Your task to perform on an android device: Open Youtube and go to "Your channel" Image 0: 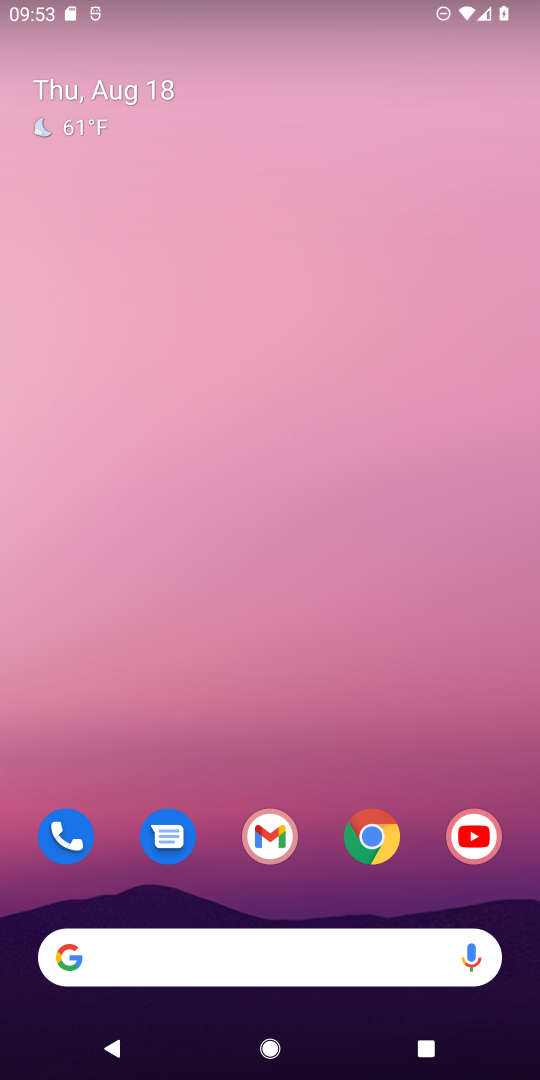
Step 0: drag from (298, 734) to (310, 204)
Your task to perform on an android device: Open Youtube and go to "Your channel" Image 1: 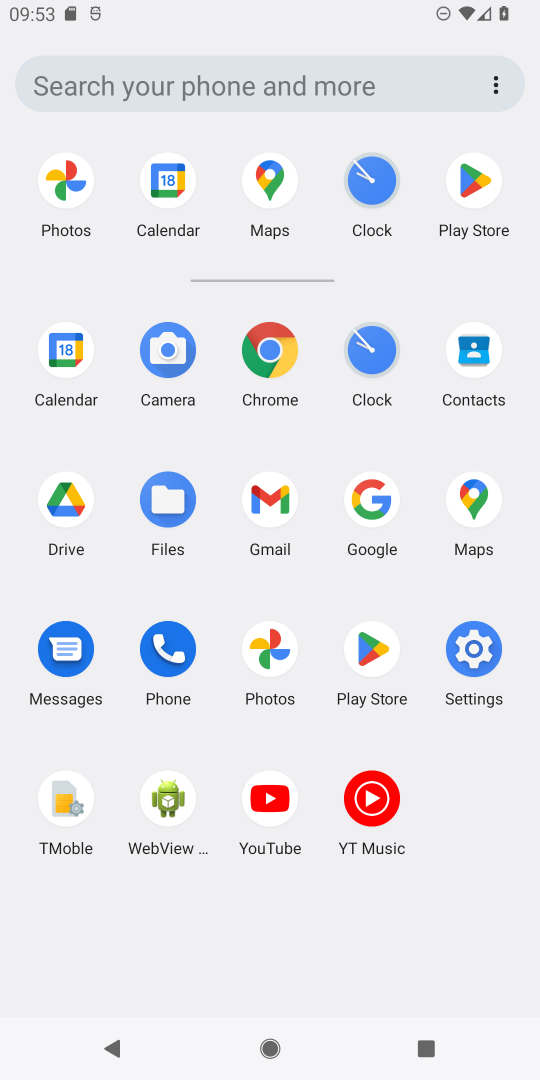
Step 1: click (272, 791)
Your task to perform on an android device: Open Youtube and go to "Your channel" Image 2: 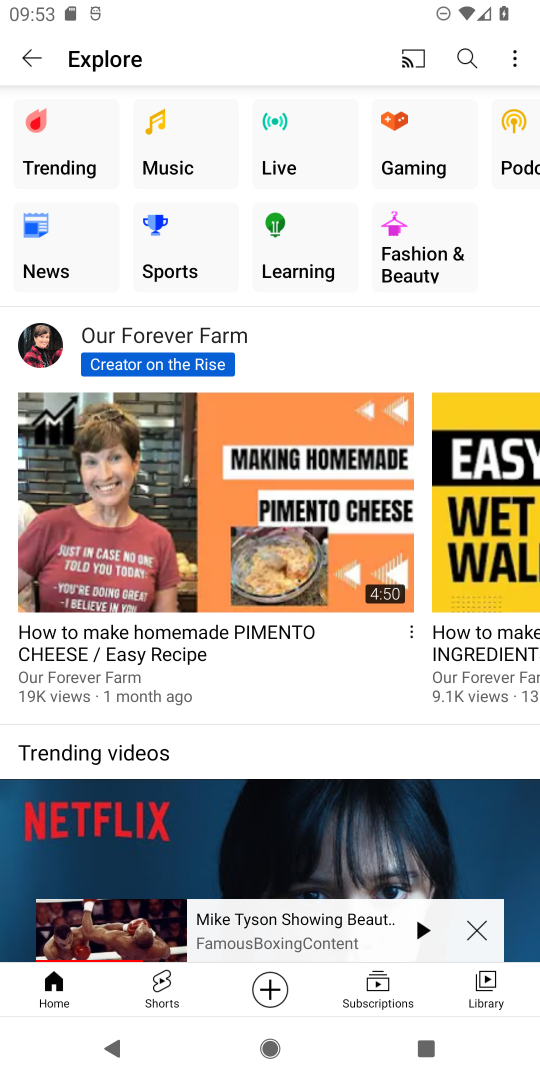
Step 2: press back button
Your task to perform on an android device: Open Youtube and go to "Your channel" Image 3: 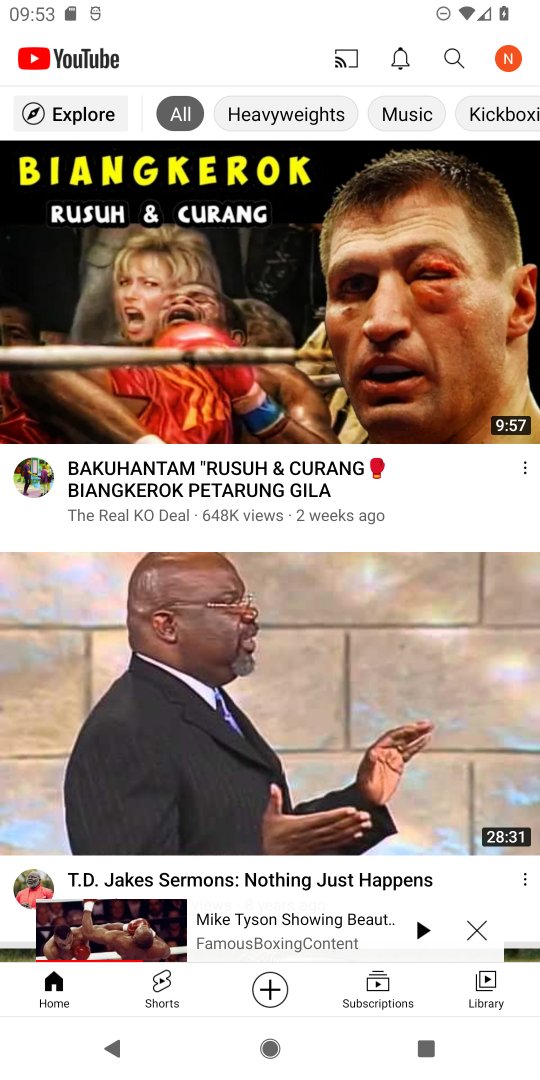
Step 3: click (514, 57)
Your task to perform on an android device: Open Youtube and go to "Your channel" Image 4: 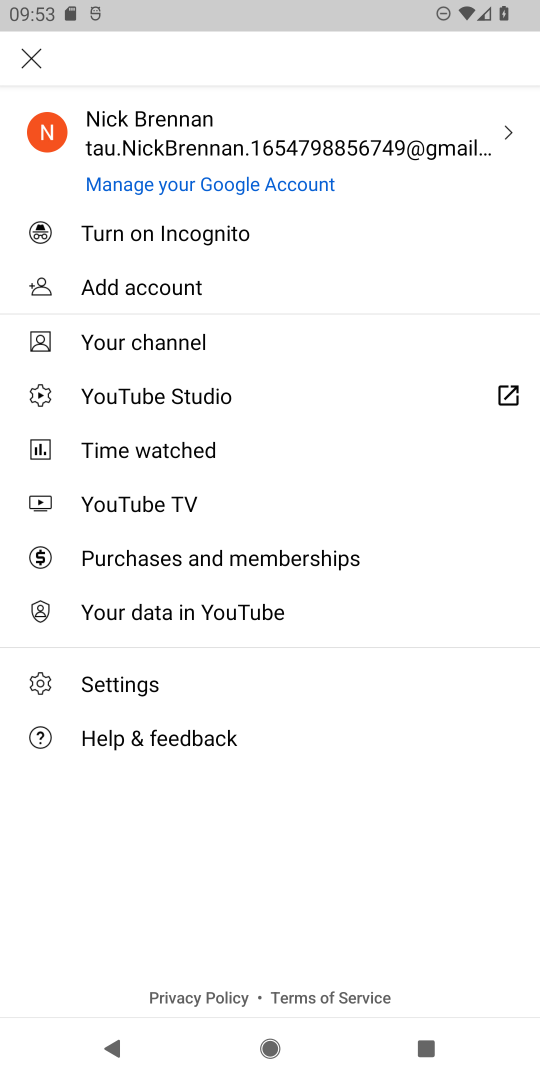
Step 4: click (196, 296)
Your task to perform on an android device: Open Youtube and go to "Your channel" Image 5: 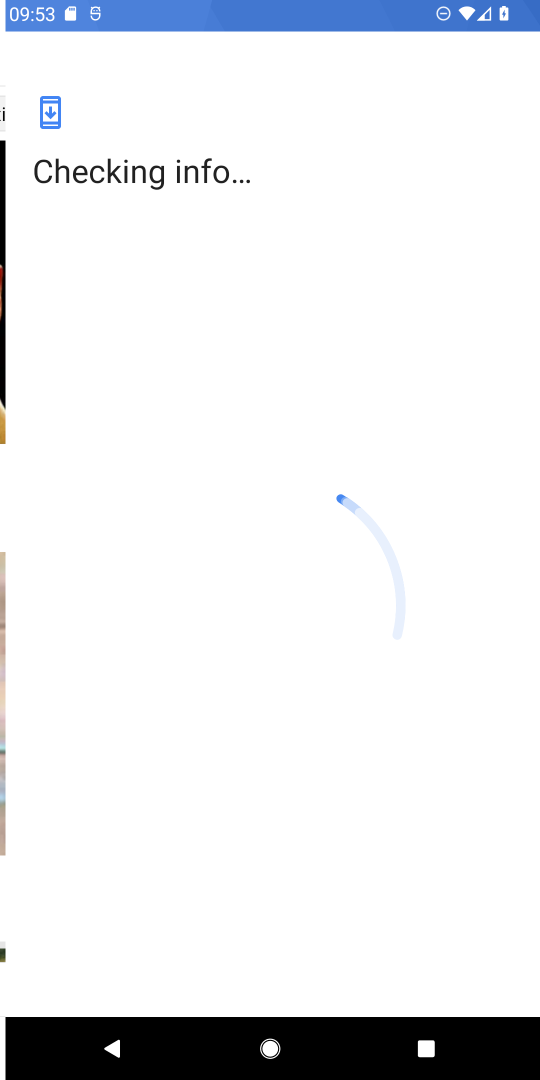
Step 5: press back button
Your task to perform on an android device: Open Youtube and go to "Your channel" Image 6: 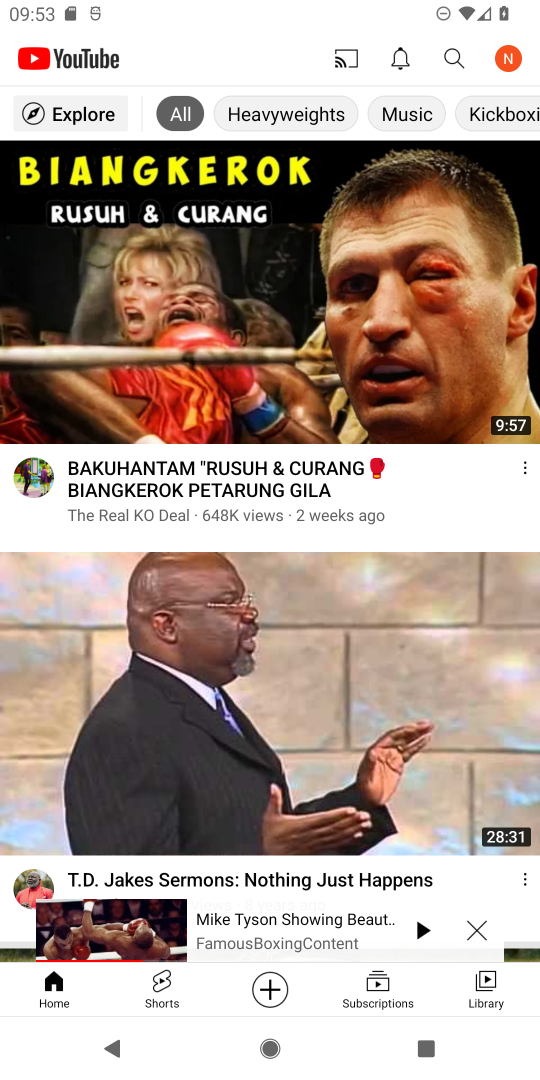
Step 6: click (512, 71)
Your task to perform on an android device: Open Youtube and go to "Your channel" Image 7: 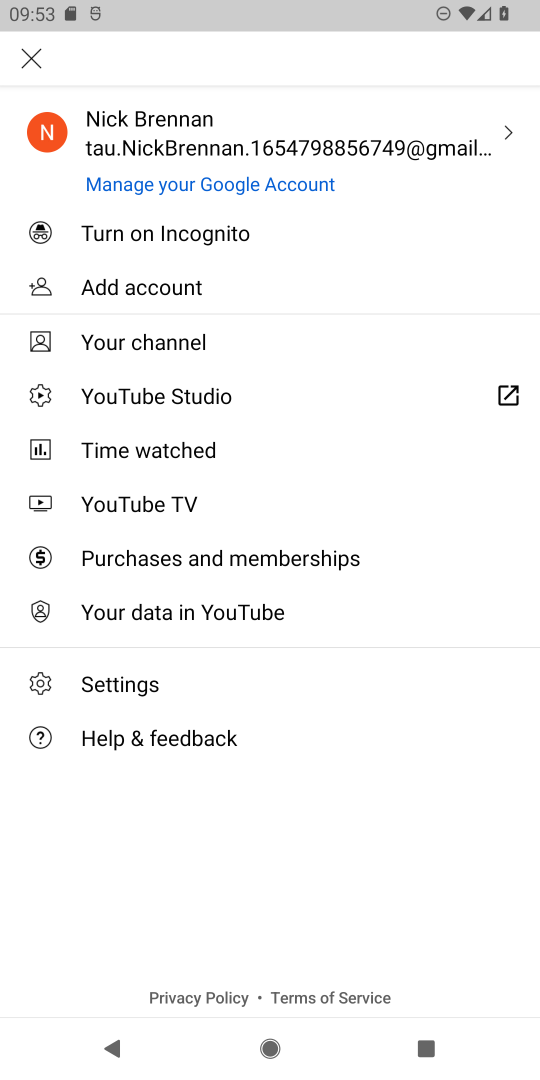
Step 7: click (169, 345)
Your task to perform on an android device: Open Youtube and go to "Your channel" Image 8: 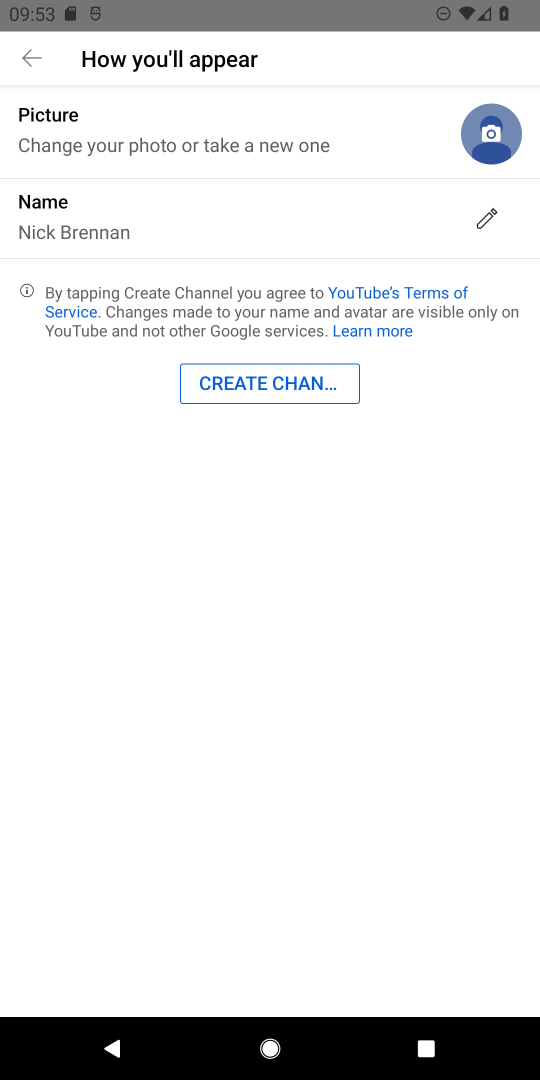
Step 8: task complete